Your task to perform on an android device: Search for Italian restaurants on Maps Image 0: 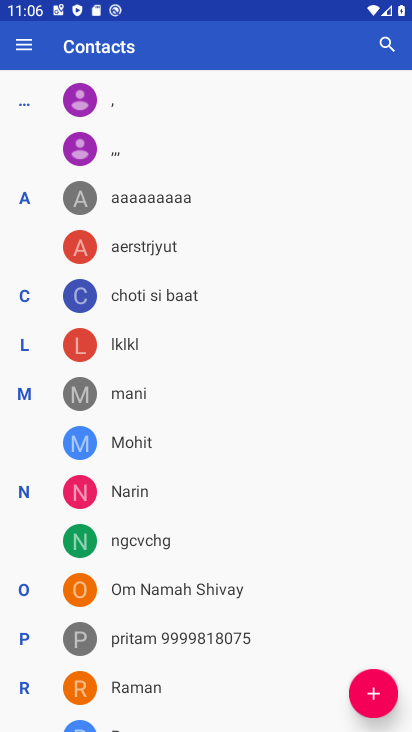
Step 0: press home button
Your task to perform on an android device: Search for Italian restaurants on Maps Image 1: 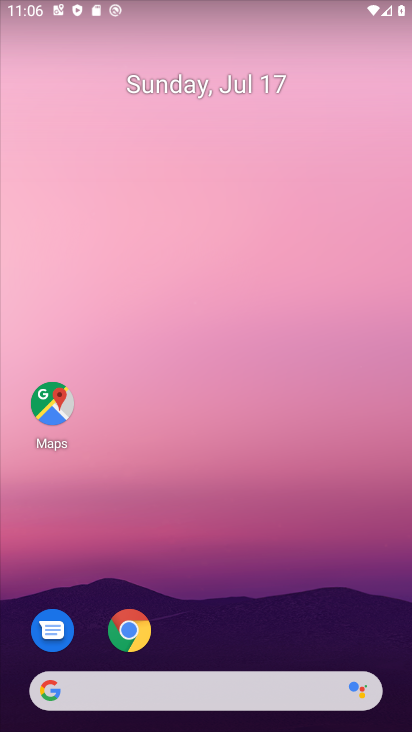
Step 1: click (42, 414)
Your task to perform on an android device: Search for Italian restaurants on Maps Image 2: 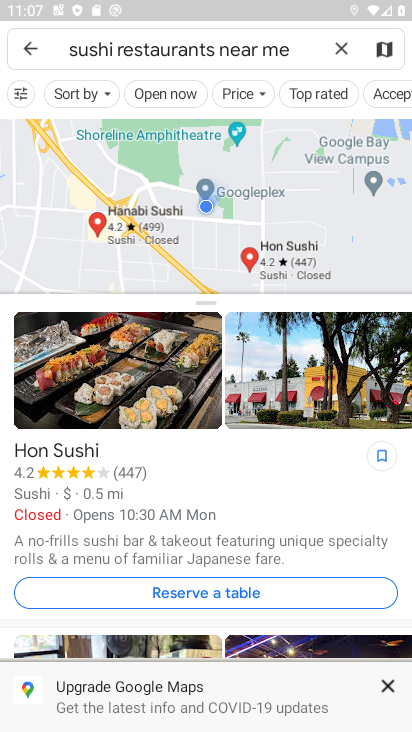
Step 2: click (352, 44)
Your task to perform on an android device: Search for Italian restaurants on Maps Image 3: 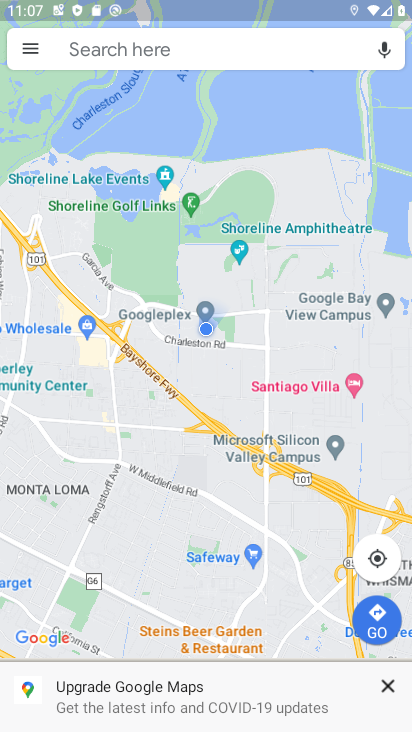
Step 3: click (239, 49)
Your task to perform on an android device: Search for Italian restaurants on Maps Image 4: 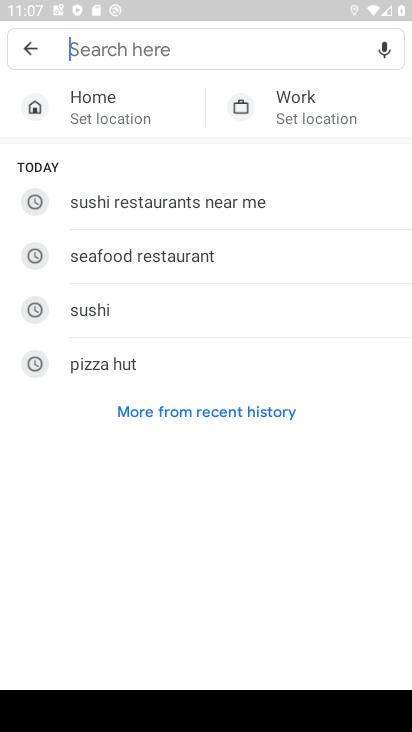
Step 4: type "italian restaurants"
Your task to perform on an android device: Search for Italian restaurants on Maps Image 5: 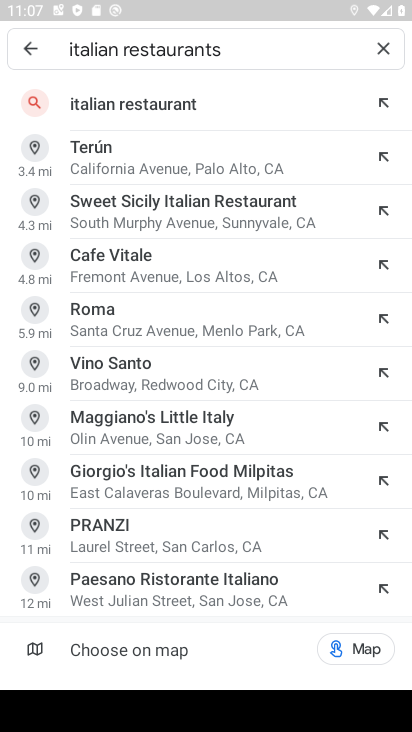
Step 5: click (142, 116)
Your task to perform on an android device: Search for Italian restaurants on Maps Image 6: 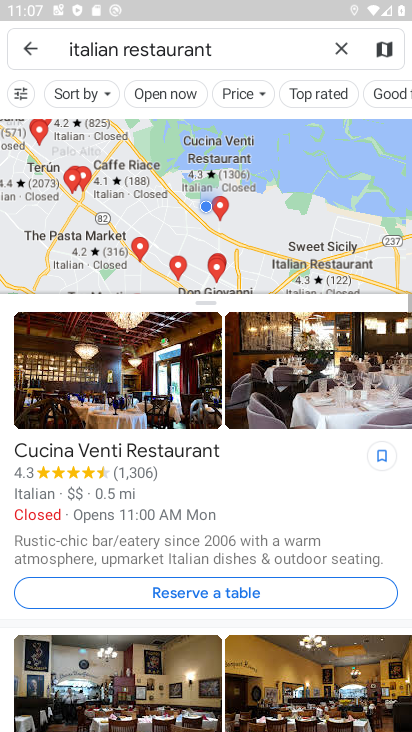
Step 6: task complete